Your task to perform on an android device: Open Google Maps Image 0: 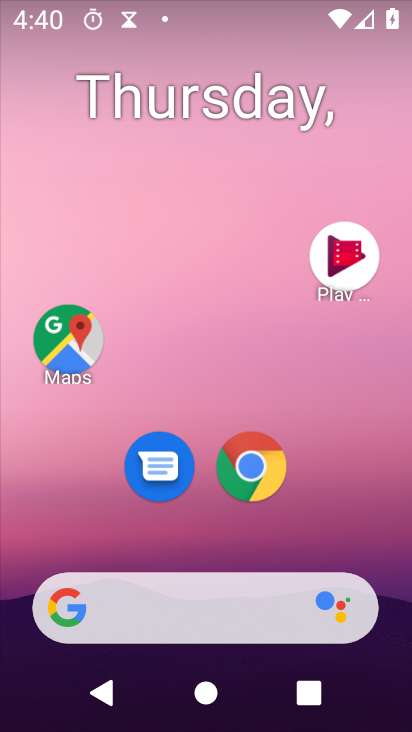
Step 0: drag from (175, 376) to (312, 22)
Your task to perform on an android device: Open Google Maps Image 1: 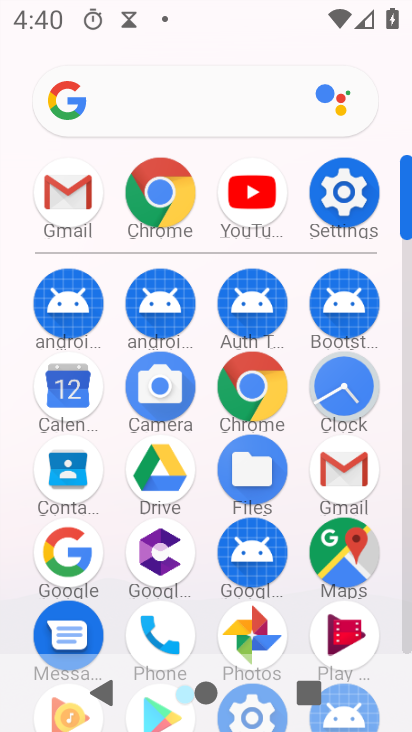
Step 1: click (347, 581)
Your task to perform on an android device: Open Google Maps Image 2: 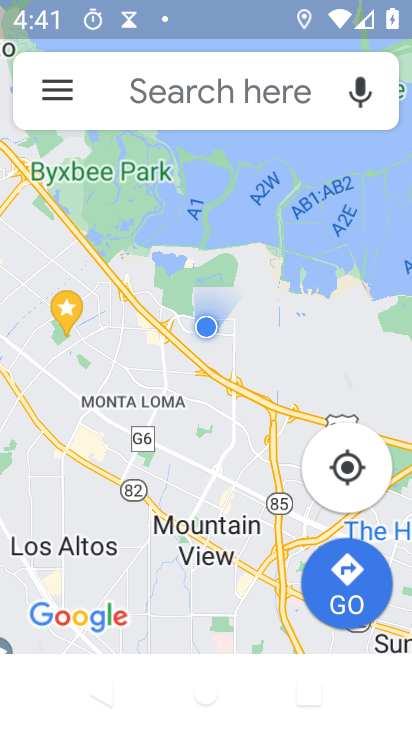
Step 2: task complete